Your task to perform on an android device: Open the calendar and show me this week's events? Image 0: 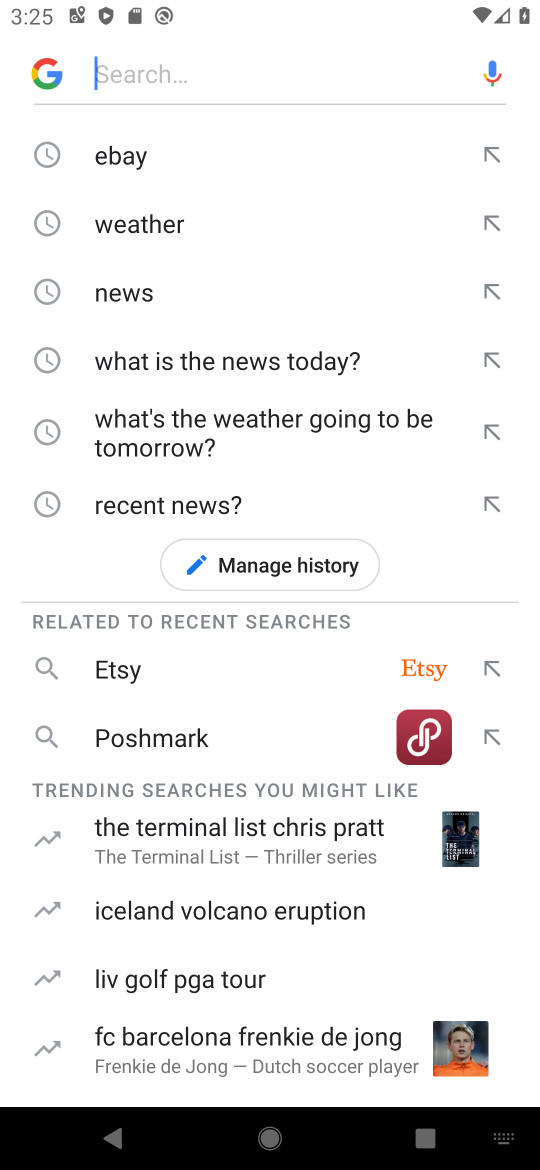
Step 0: press home button
Your task to perform on an android device: Open the calendar and show me this week's events? Image 1: 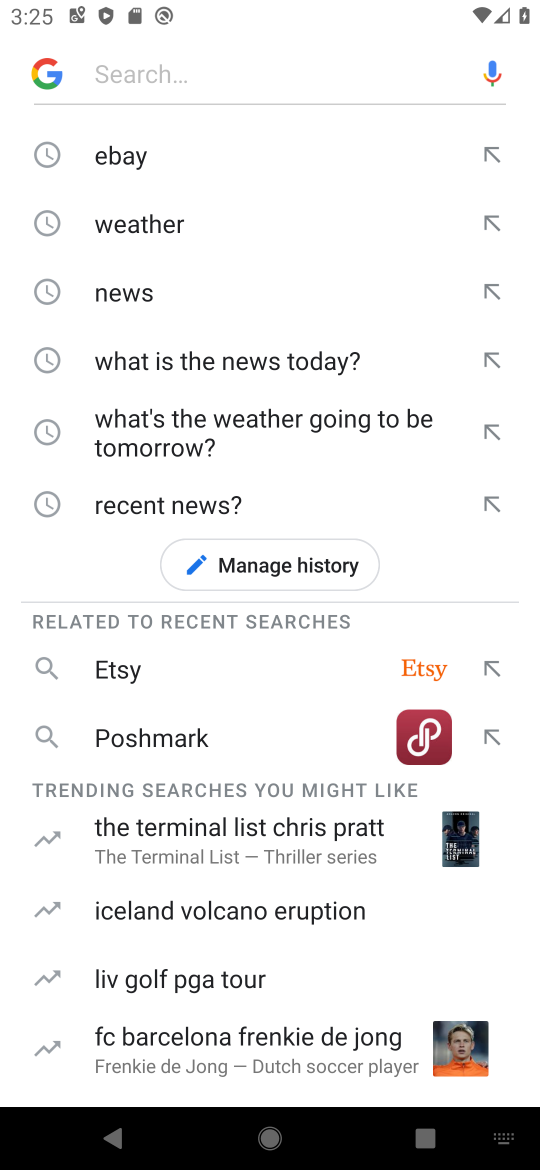
Step 1: press home button
Your task to perform on an android device: Open the calendar and show me this week's events? Image 2: 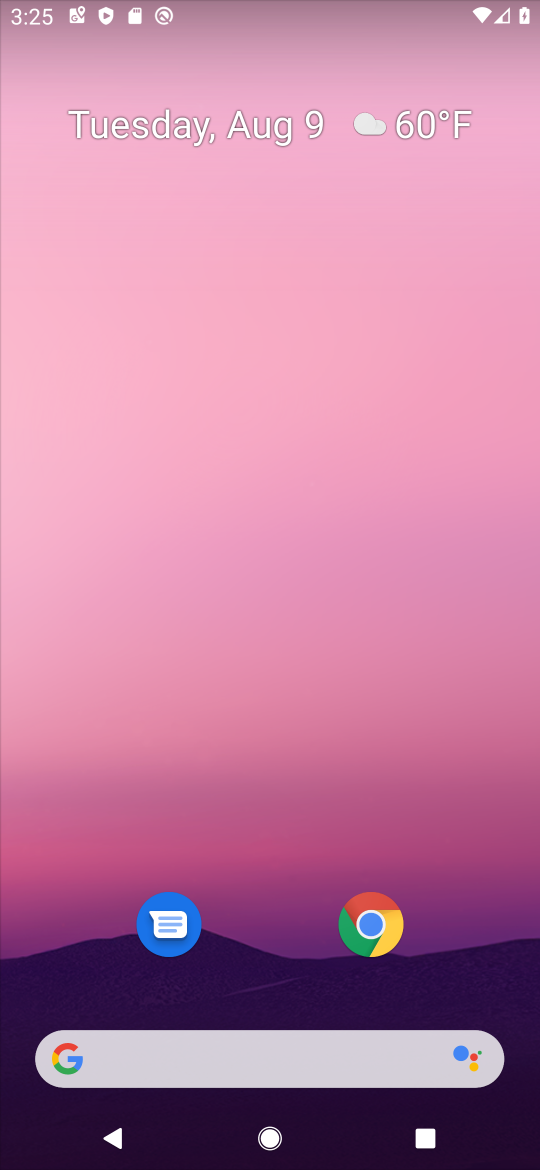
Step 2: drag from (293, 904) to (312, 0)
Your task to perform on an android device: Open the calendar and show me this week's events? Image 3: 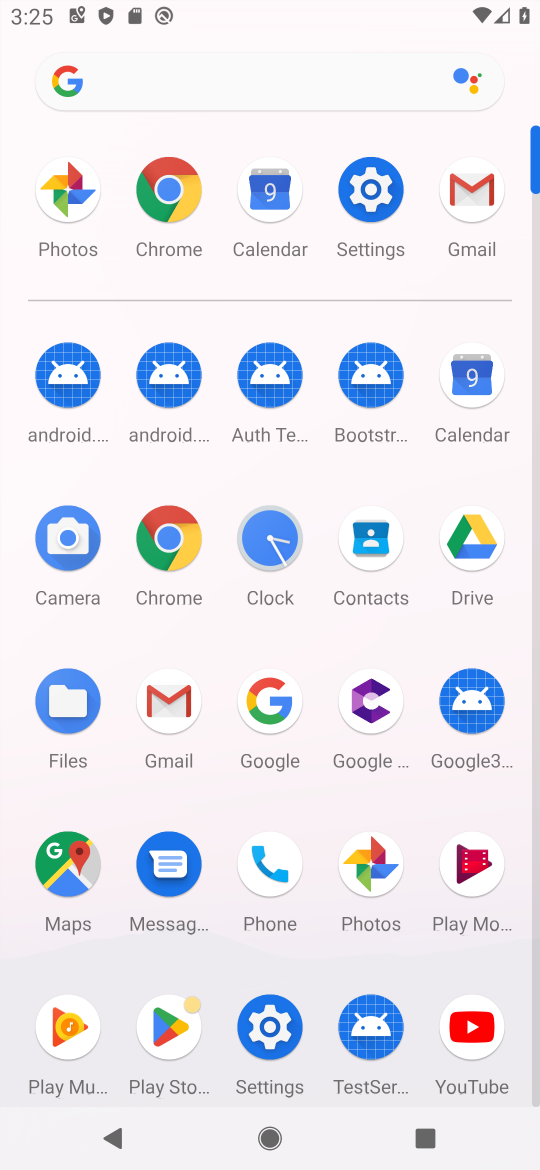
Step 3: click (271, 193)
Your task to perform on an android device: Open the calendar and show me this week's events? Image 4: 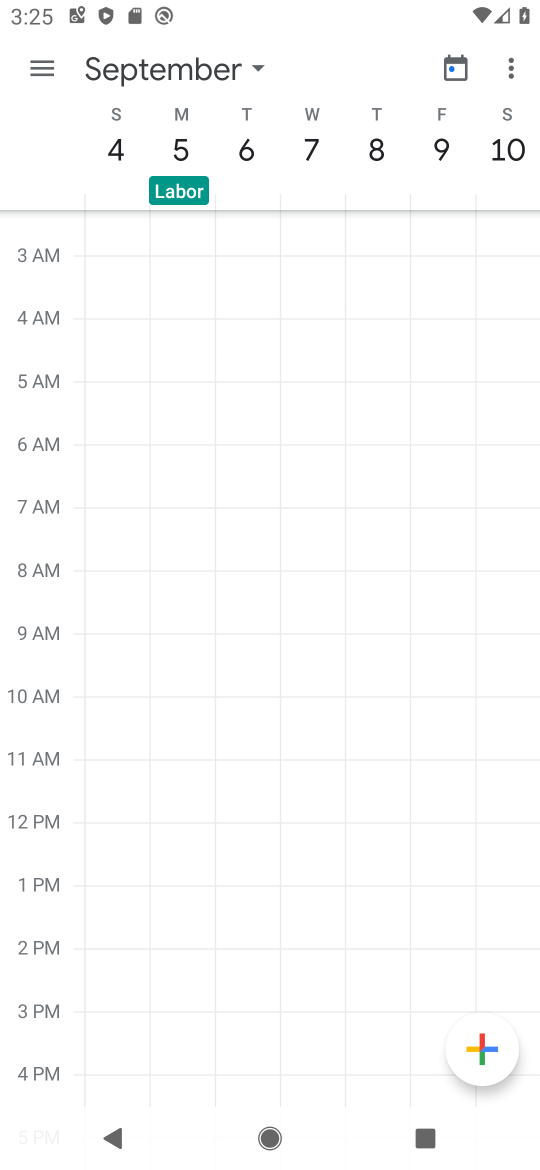
Step 4: click (157, 436)
Your task to perform on an android device: Open the calendar and show me this week's events? Image 5: 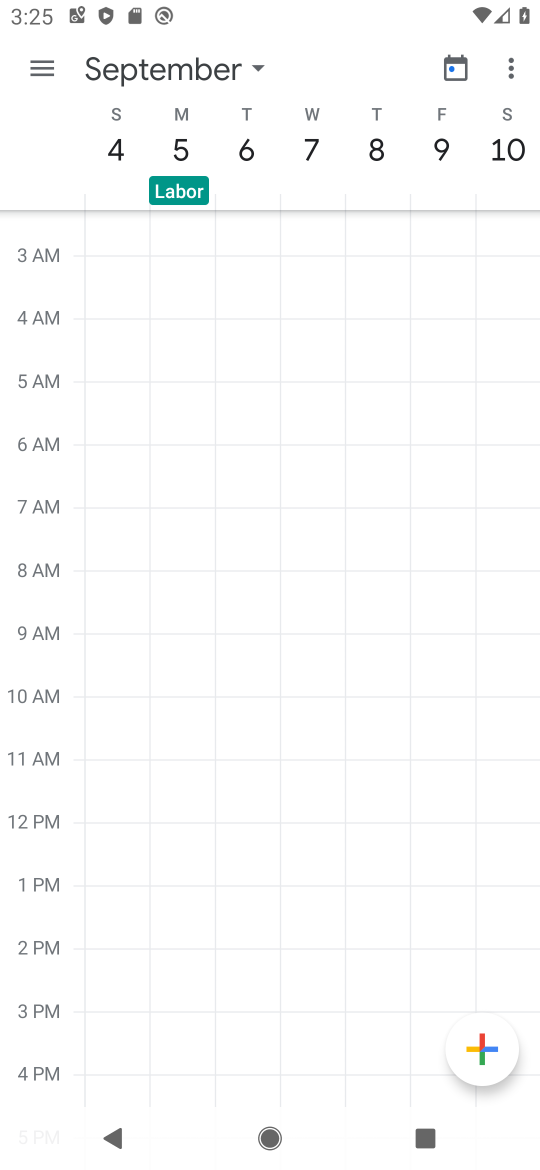
Step 5: task complete